Your task to perform on an android device: open app "Google Photos" (install if not already installed) Image 0: 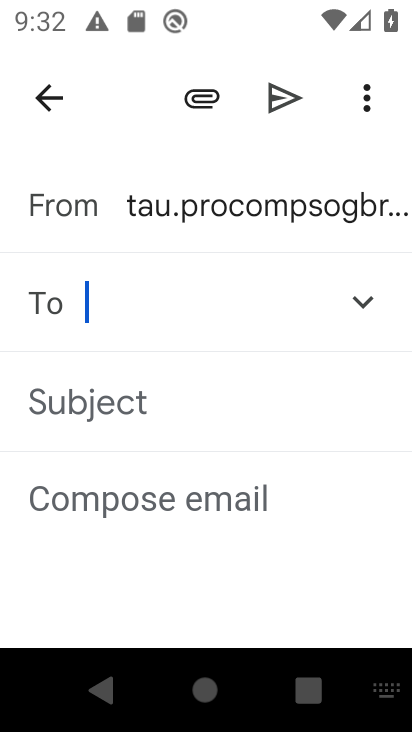
Step 0: press home button
Your task to perform on an android device: open app "Google Photos" (install if not already installed) Image 1: 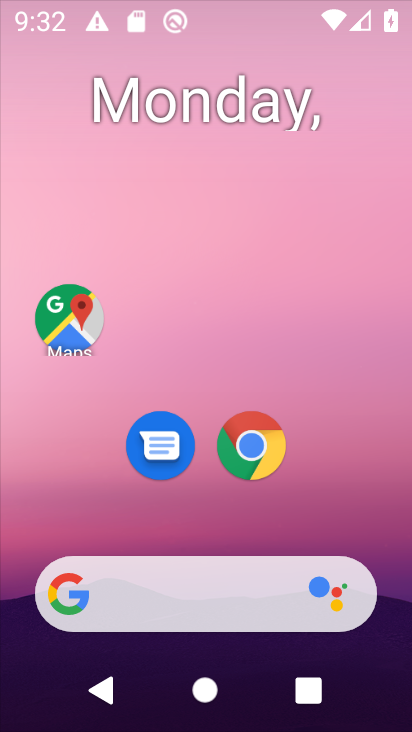
Step 1: drag from (404, 587) to (201, 45)
Your task to perform on an android device: open app "Google Photos" (install if not already installed) Image 2: 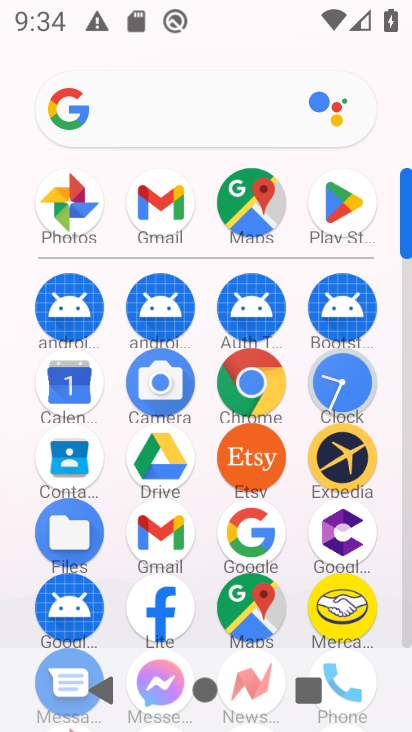
Step 2: click (320, 190)
Your task to perform on an android device: open app "Google Photos" (install if not already installed) Image 3: 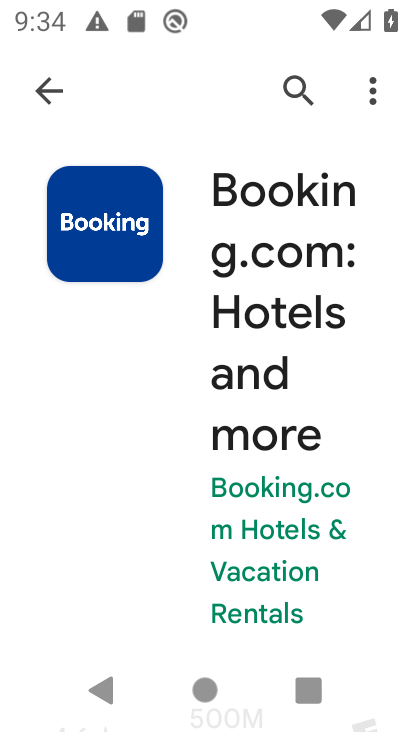
Step 3: press back button
Your task to perform on an android device: open app "Google Photos" (install if not already installed) Image 4: 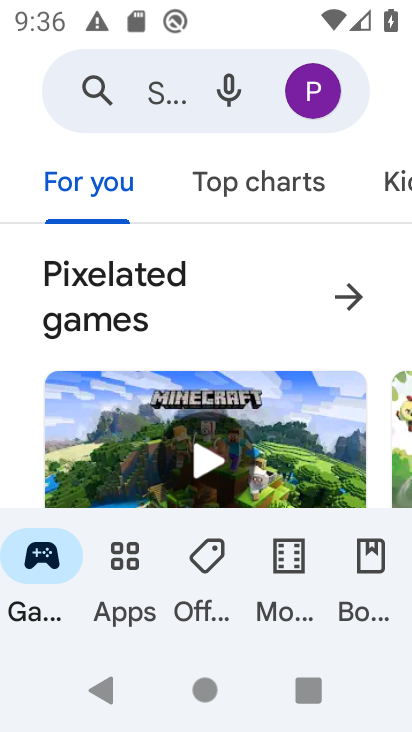
Step 4: click (144, 76)
Your task to perform on an android device: open app "Google Photos" (install if not already installed) Image 5: 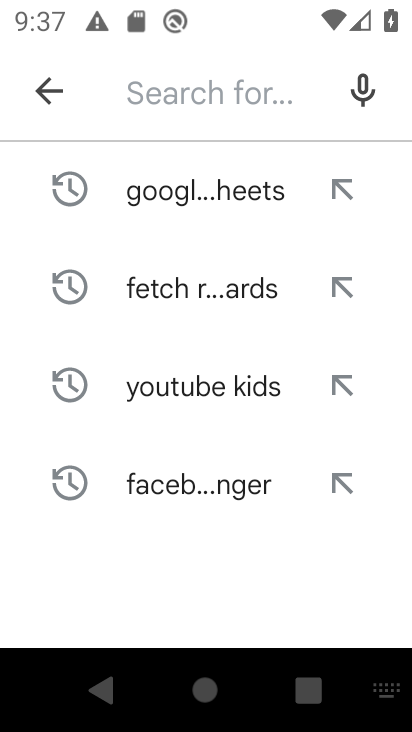
Step 5: type "Google Photos"
Your task to perform on an android device: open app "Google Photos" (install if not already installed) Image 6: 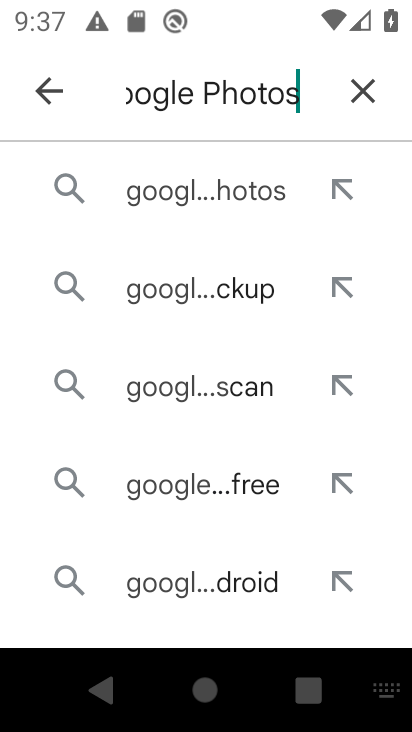
Step 6: click (200, 199)
Your task to perform on an android device: open app "Google Photos" (install if not already installed) Image 7: 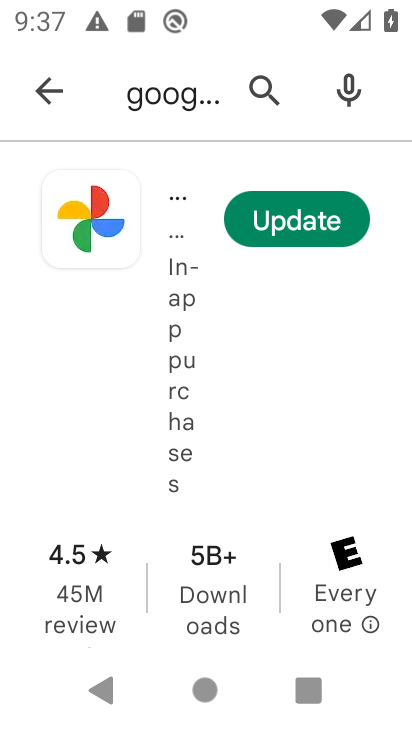
Step 7: task complete